Your task to perform on an android device: What's on my calendar for the rest of the month? Image 0: 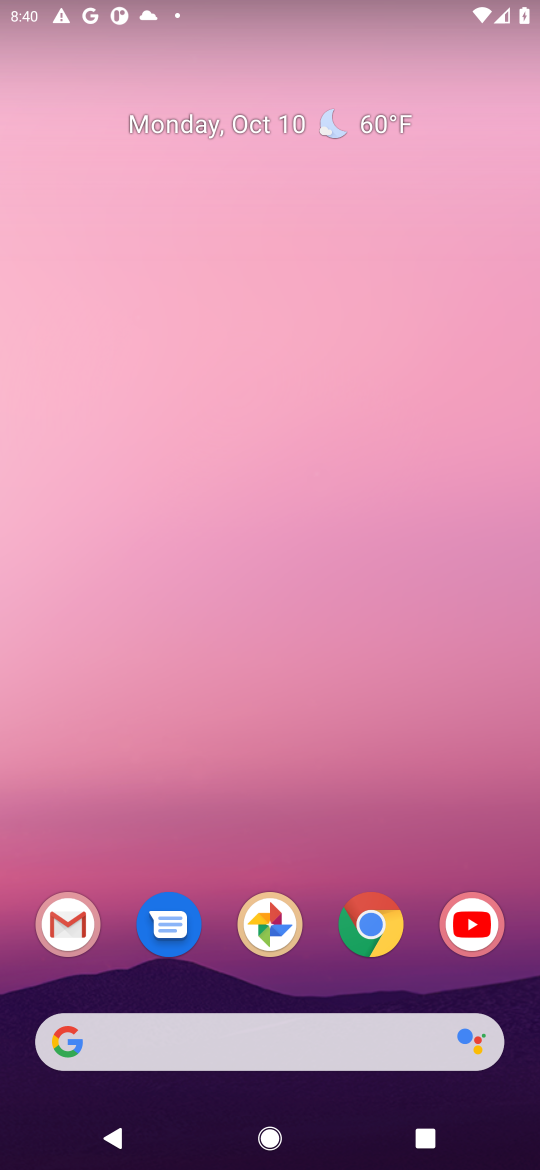
Step 0: drag from (322, 880) to (376, 370)
Your task to perform on an android device: What's on my calendar for the rest of the month? Image 1: 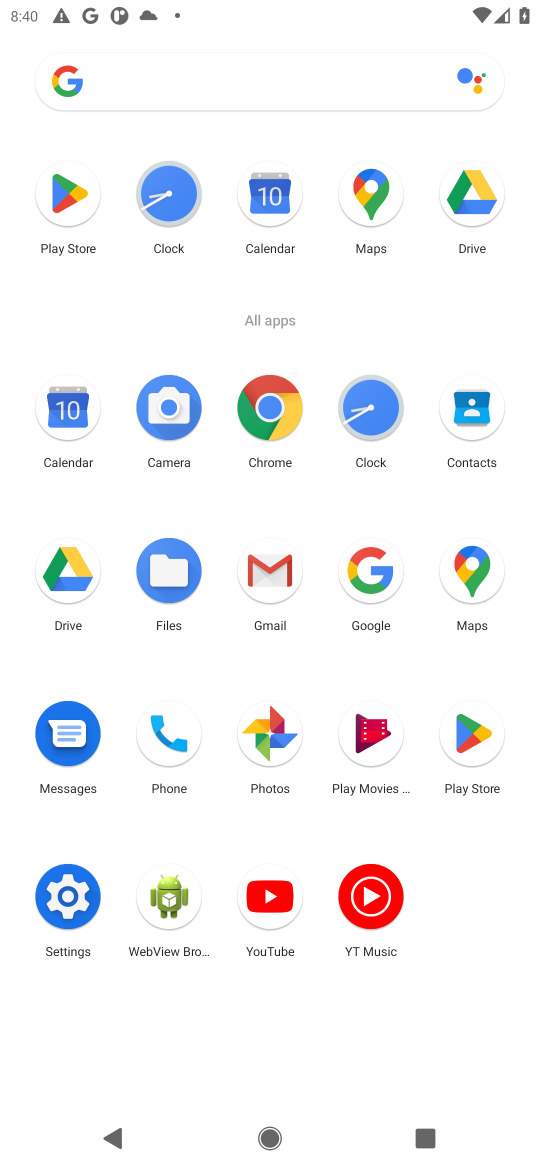
Step 1: click (267, 235)
Your task to perform on an android device: What's on my calendar for the rest of the month? Image 2: 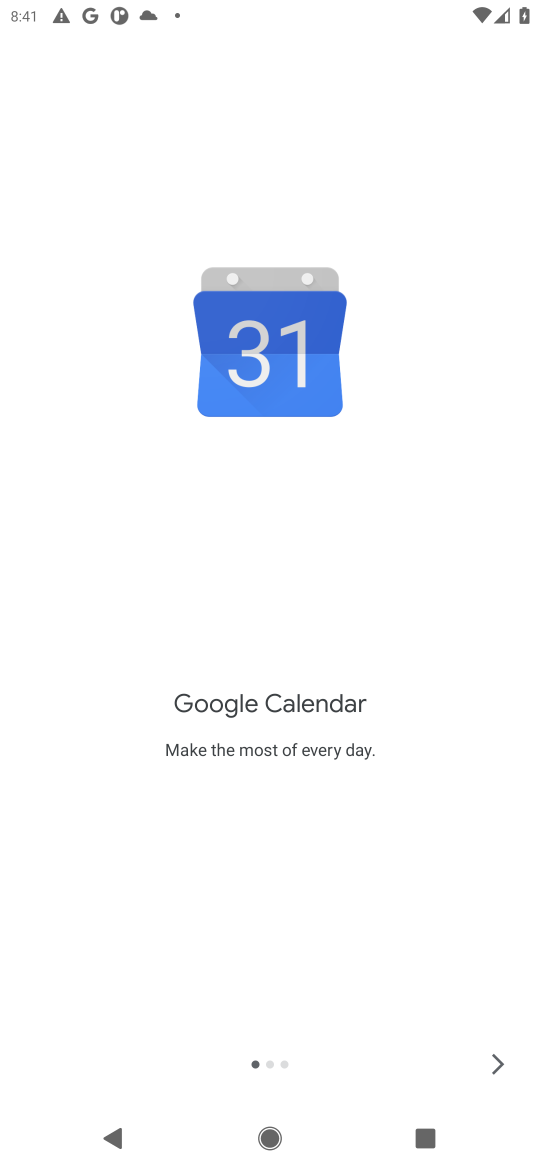
Step 2: click (498, 1062)
Your task to perform on an android device: What's on my calendar for the rest of the month? Image 3: 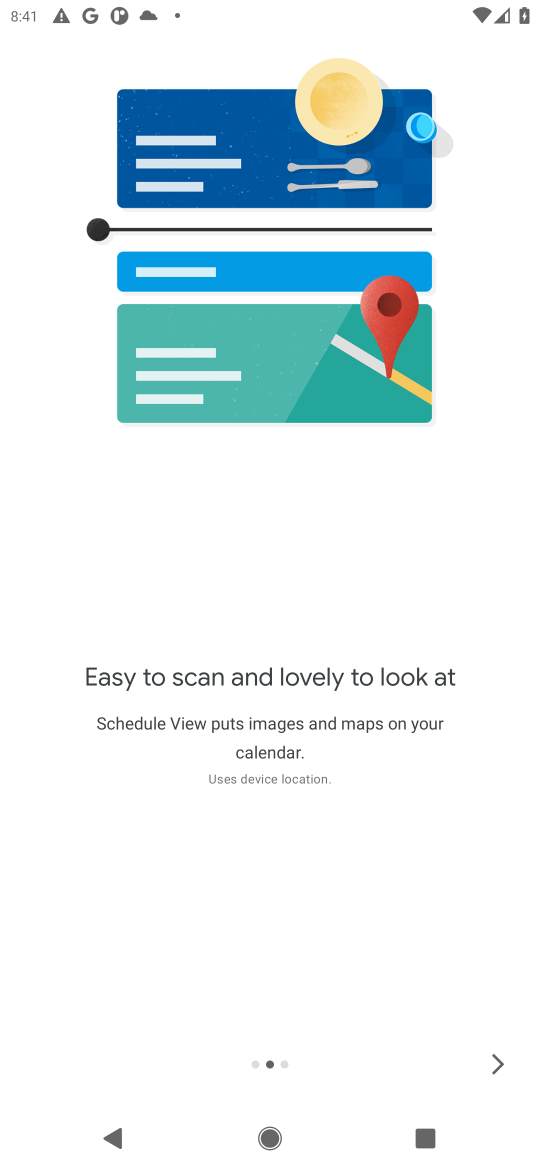
Step 3: click (498, 1062)
Your task to perform on an android device: What's on my calendar for the rest of the month? Image 4: 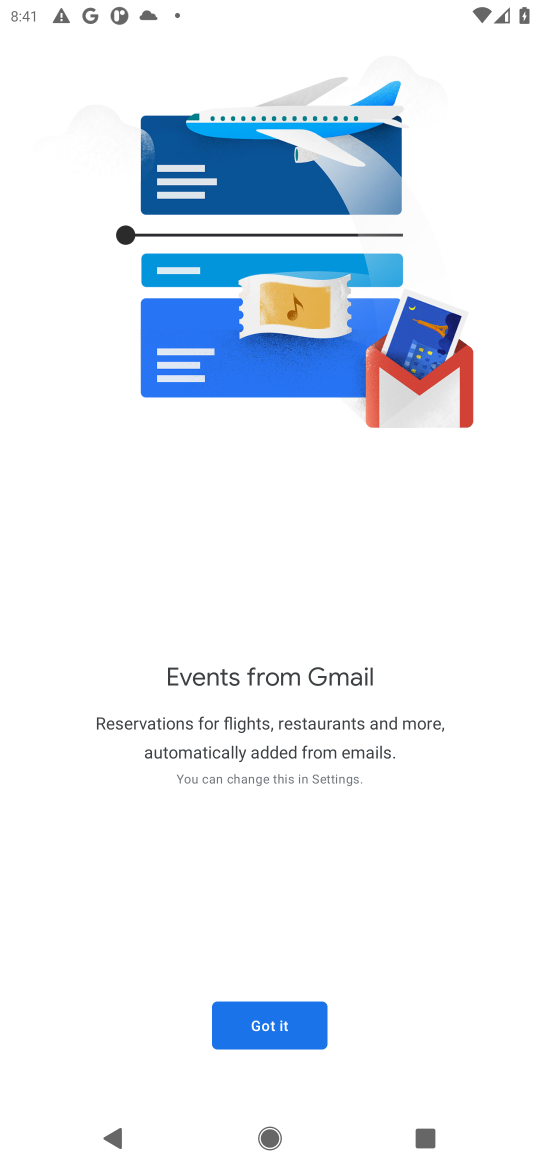
Step 4: click (498, 1062)
Your task to perform on an android device: What's on my calendar for the rest of the month? Image 5: 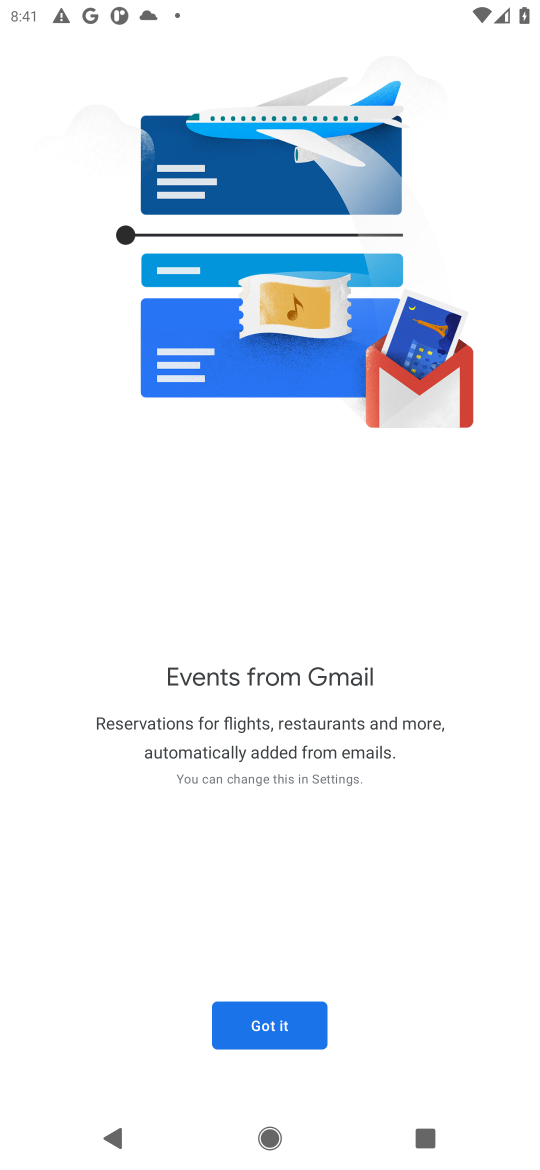
Step 5: click (295, 1025)
Your task to perform on an android device: What's on my calendar for the rest of the month? Image 6: 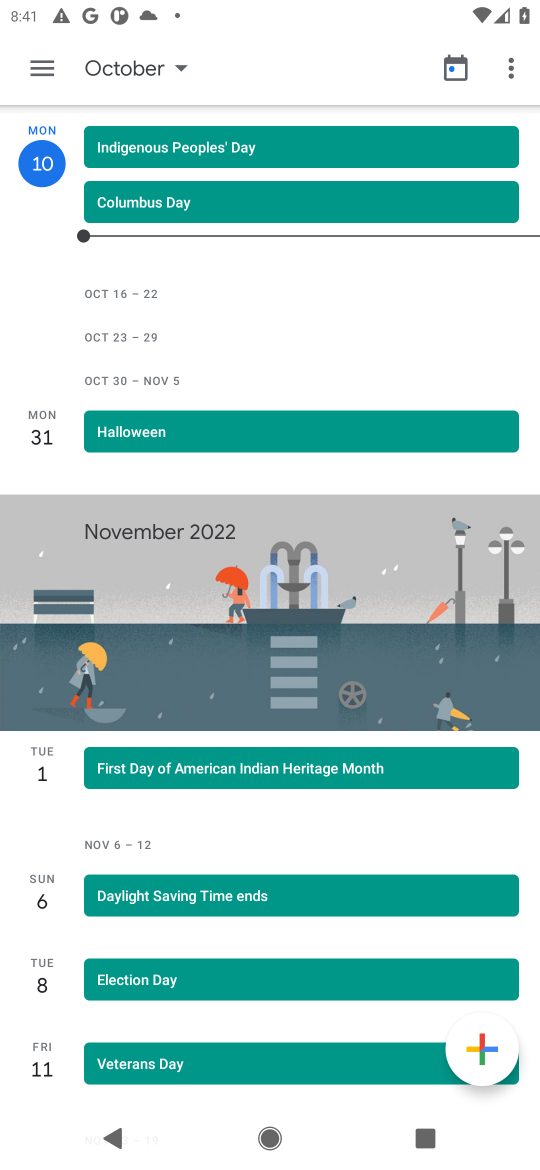
Step 6: click (166, 69)
Your task to perform on an android device: What's on my calendar for the rest of the month? Image 7: 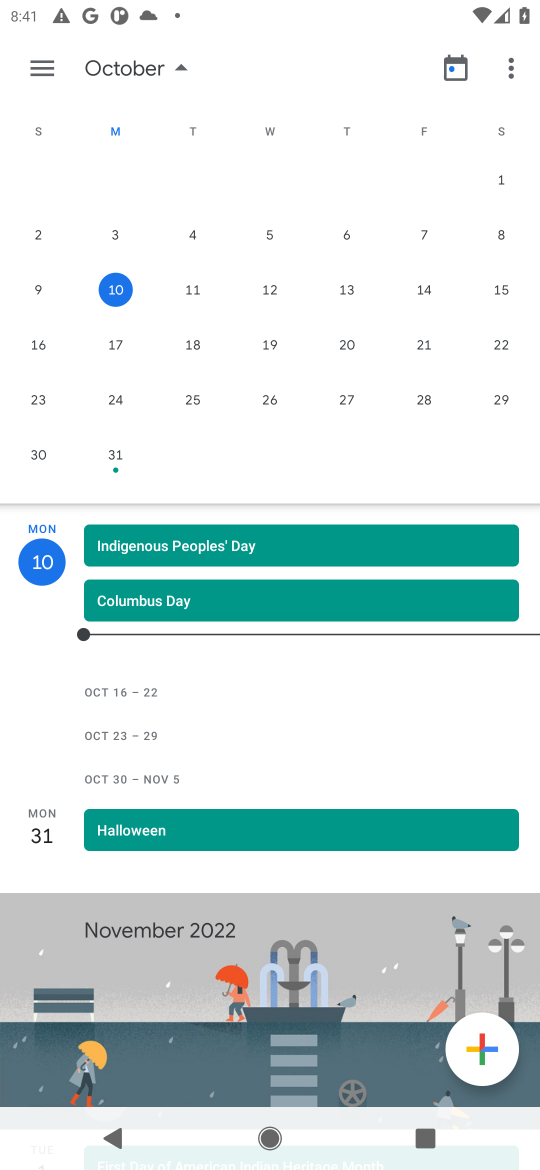
Step 7: click (117, 286)
Your task to perform on an android device: What's on my calendar for the rest of the month? Image 8: 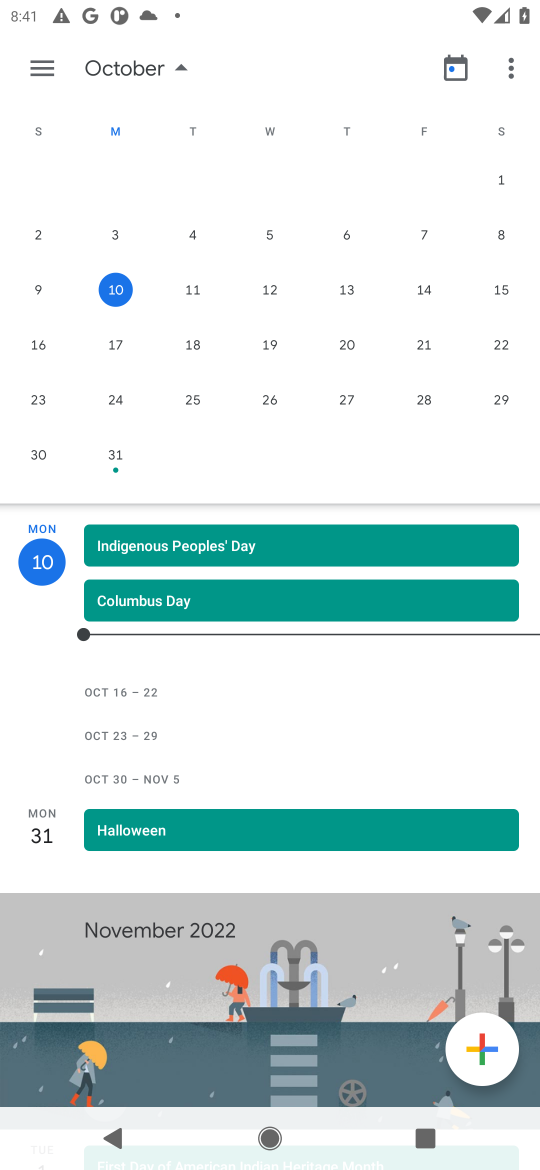
Step 8: task complete